Your task to perform on an android device: search for starred emails in the gmail app Image 0: 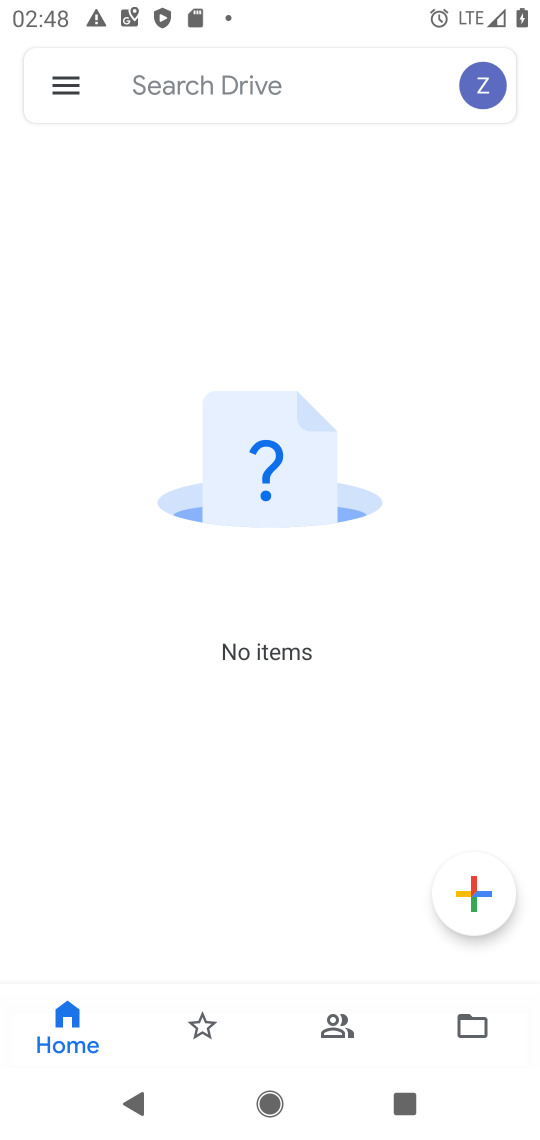
Step 0: press home button
Your task to perform on an android device: search for starred emails in the gmail app Image 1: 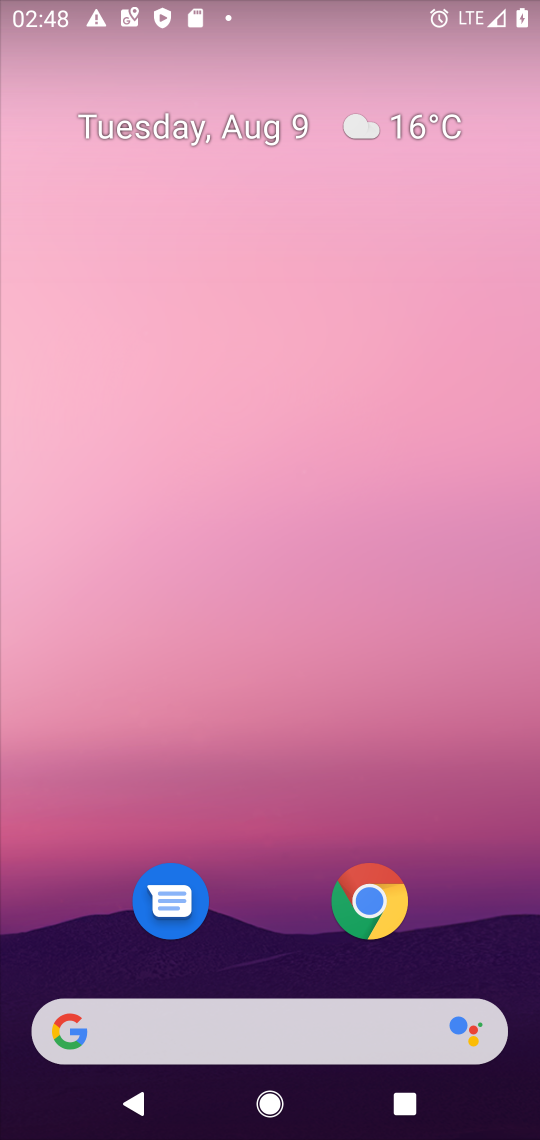
Step 1: drag from (506, 976) to (484, 240)
Your task to perform on an android device: search for starred emails in the gmail app Image 2: 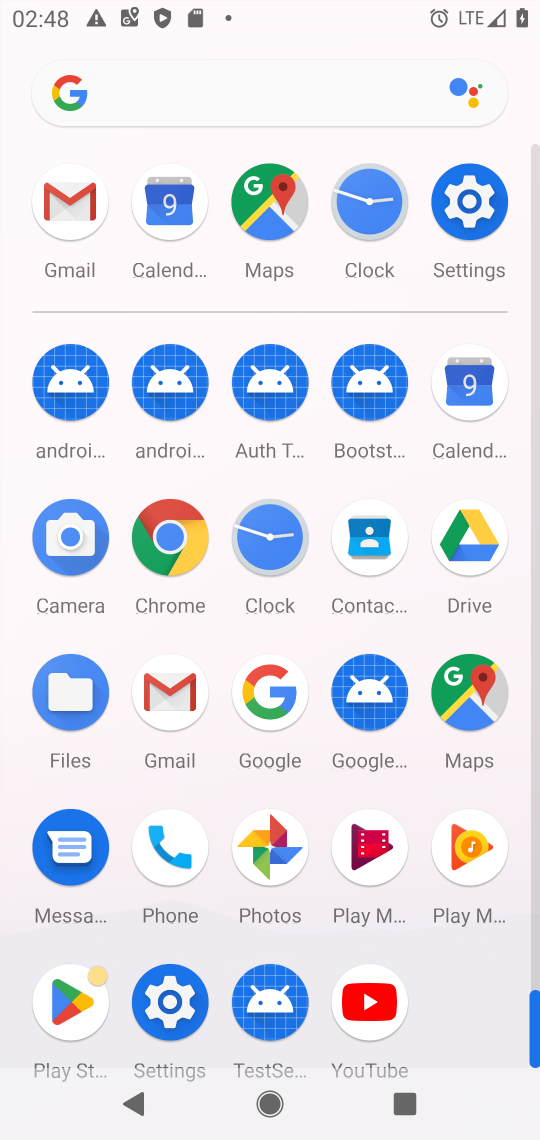
Step 2: click (166, 689)
Your task to perform on an android device: search for starred emails in the gmail app Image 3: 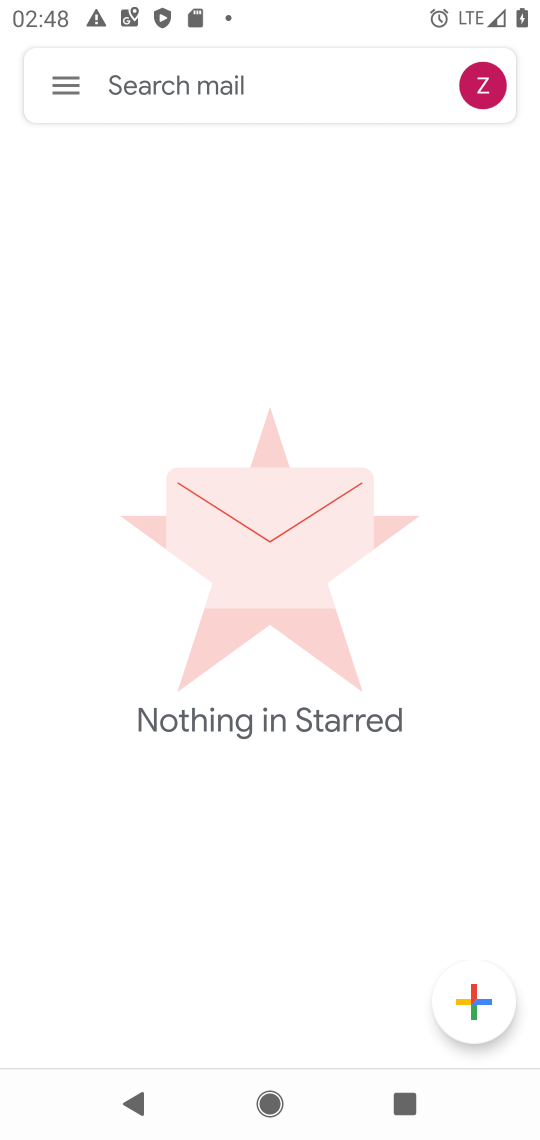
Step 3: task complete